Your task to perform on an android device: turn on airplane mode Image 0: 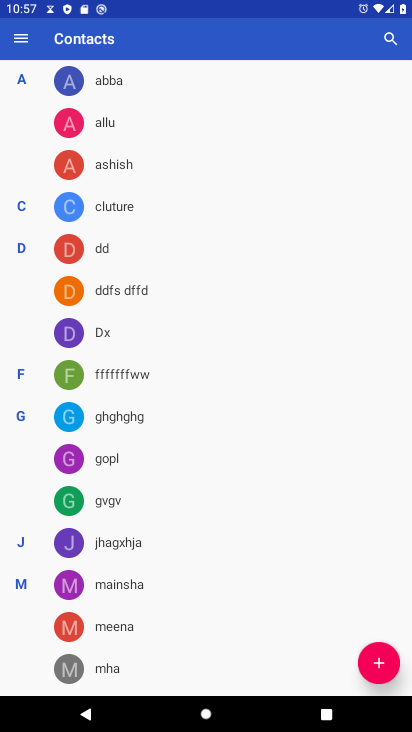
Step 0: press home button
Your task to perform on an android device: turn on airplane mode Image 1: 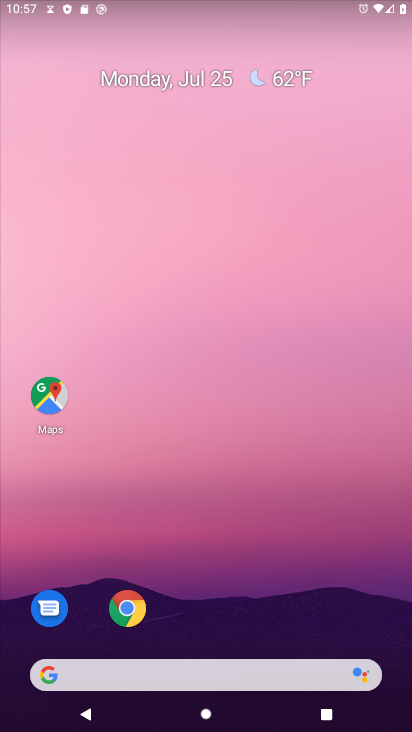
Step 1: drag from (187, 674) to (204, 155)
Your task to perform on an android device: turn on airplane mode Image 2: 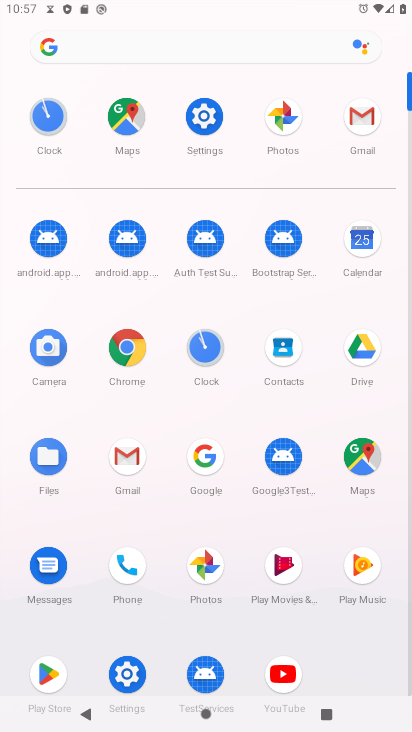
Step 2: click (205, 117)
Your task to perform on an android device: turn on airplane mode Image 3: 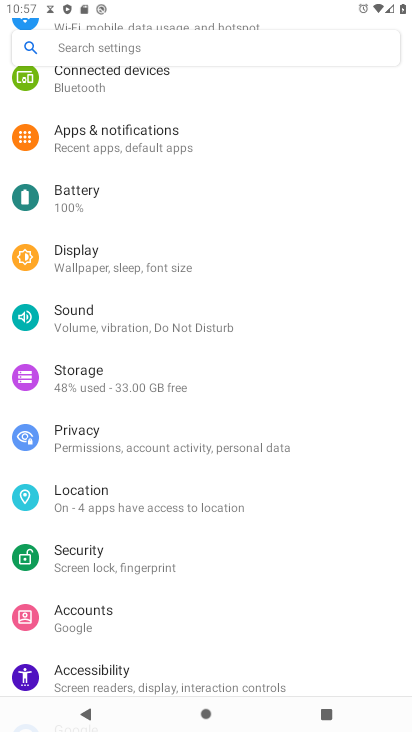
Step 3: drag from (169, 189) to (158, 282)
Your task to perform on an android device: turn on airplane mode Image 4: 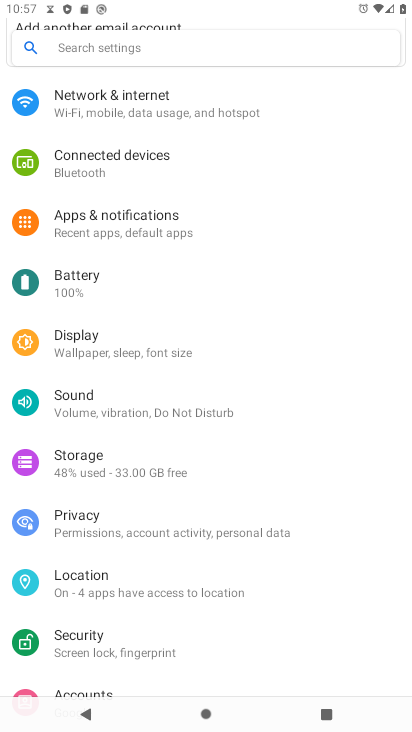
Step 4: click (152, 105)
Your task to perform on an android device: turn on airplane mode Image 5: 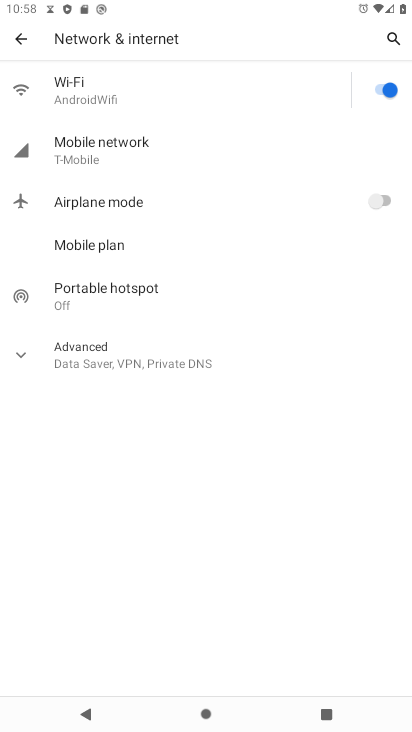
Step 5: click (391, 199)
Your task to perform on an android device: turn on airplane mode Image 6: 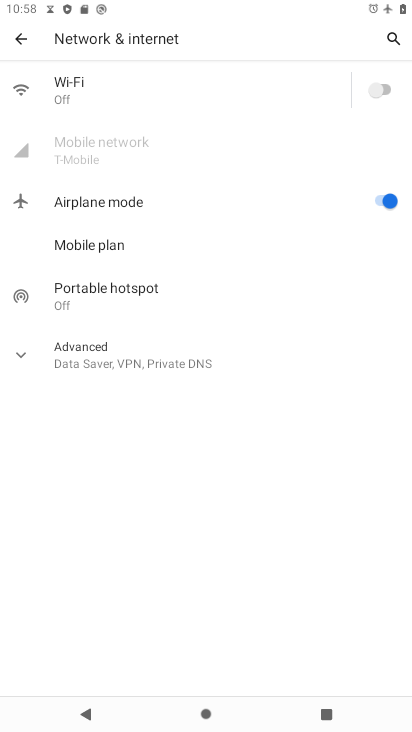
Step 6: task complete